Your task to perform on an android device: What's the weather today? Image 0: 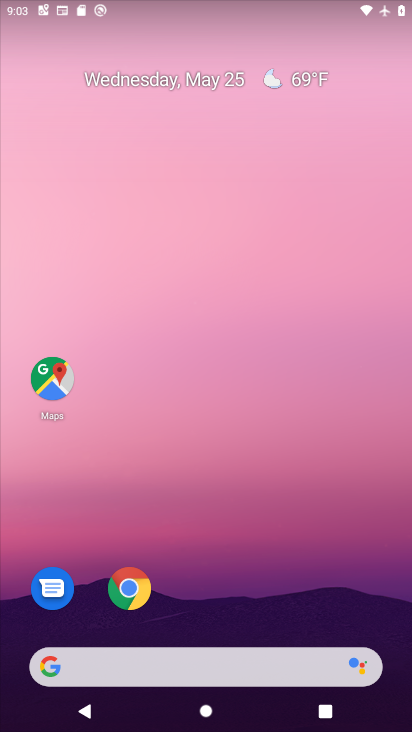
Step 0: click (299, 660)
Your task to perform on an android device: What's the weather today? Image 1: 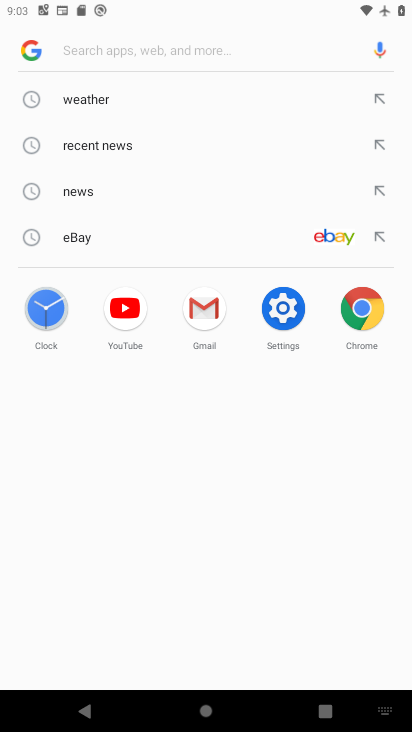
Step 1: click (99, 98)
Your task to perform on an android device: What's the weather today? Image 2: 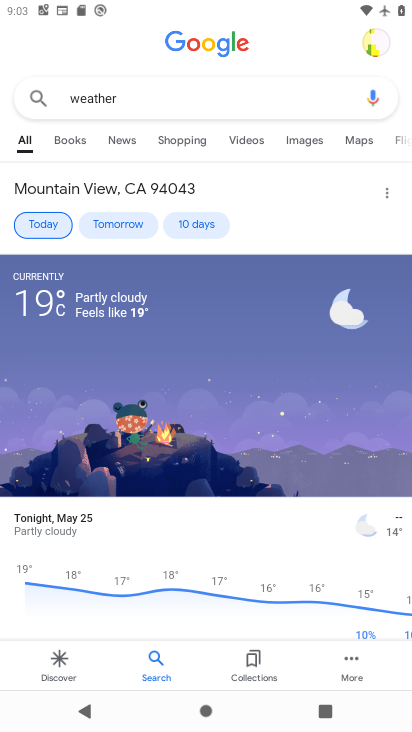
Step 2: task complete